Your task to perform on an android device: turn off priority inbox in the gmail app Image 0: 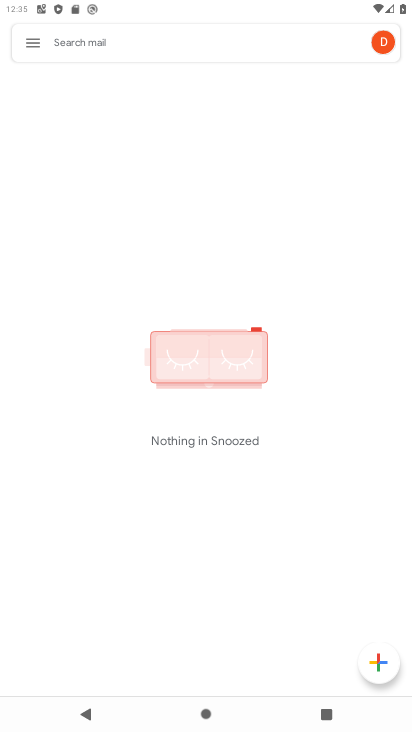
Step 0: press home button
Your task to perform on an android device: turn off priority inbox in the gmail app Image 1: 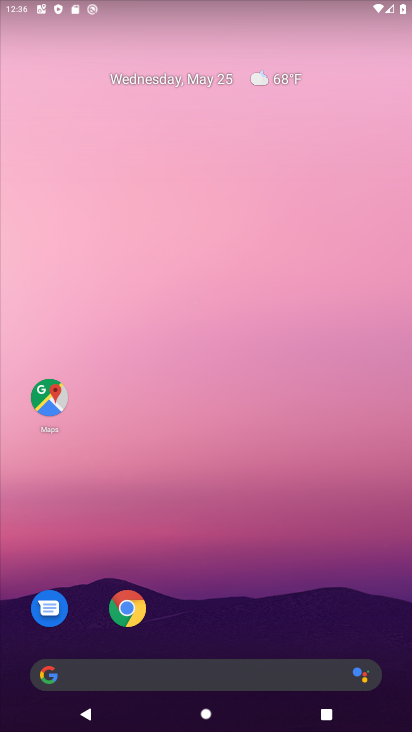
Step 1: drag from (241, 636) to (202, 122)
Your task to perform on an android device: turn off priority inbox in the gmail app Image 2: 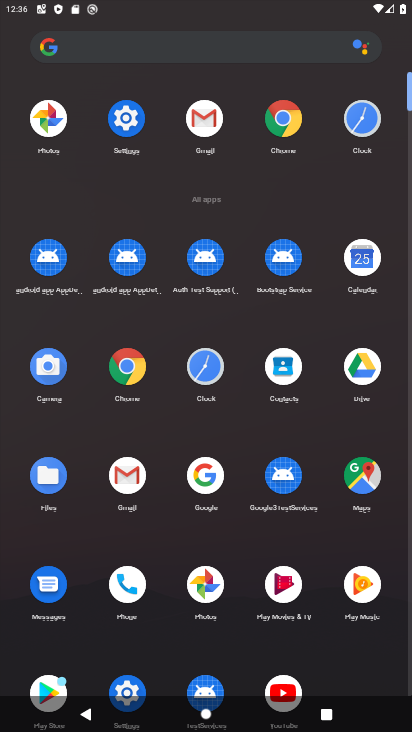
Step 2: click (127, 132)
Your task to perform on an android device: turn off priority inbox in the gmail app Image 3: 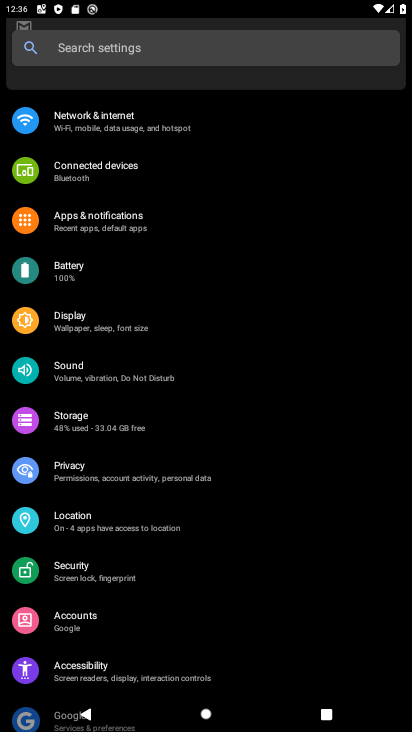
Step 3: press home button
Your task to perform on an android device: turn off priority inbox in the gmail app Image 4: 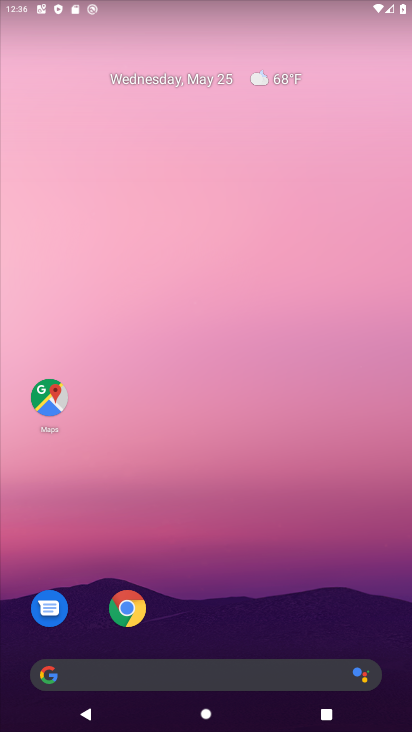
Step 4: drag from (298, 524) to (330, 162)
Your task to perform on an android device: turn off priority inbox in the gmail app Image 5: 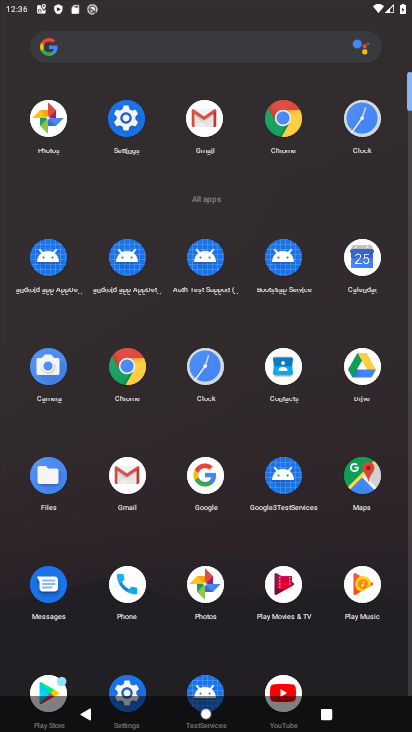
Step 5: click (284, 123)
Your task to perform on an android device: turn off priority inbox in the gmail app Image 6: 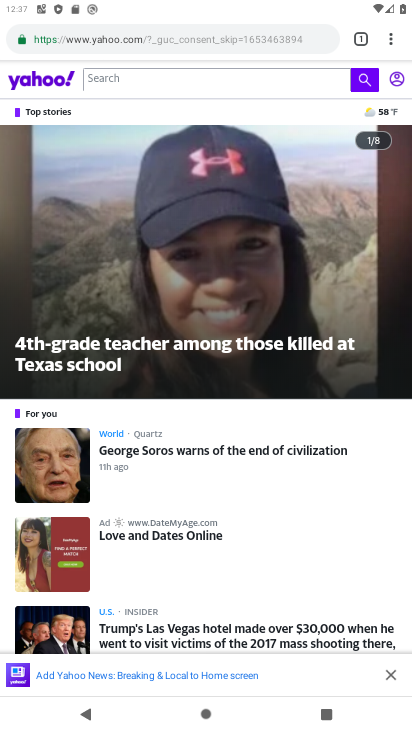
Step 6: task complete